Your task to perform on an android device: Open calendar and show me the third week of next month Image 0: 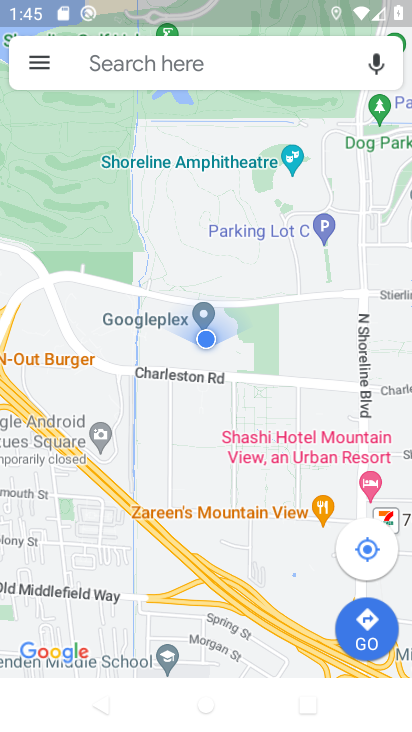
Step 0: press home button
Your task to perform on an android device: Open calendar and show me the third week of next month Image 1: 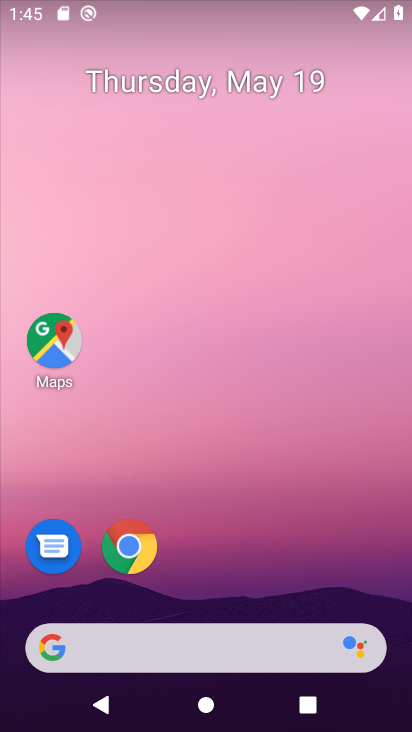
Step 1: drag from (198, 574) to (179, 57)
Your task to perform on an android device: Open calendar and show me the third week of next month Image 2: 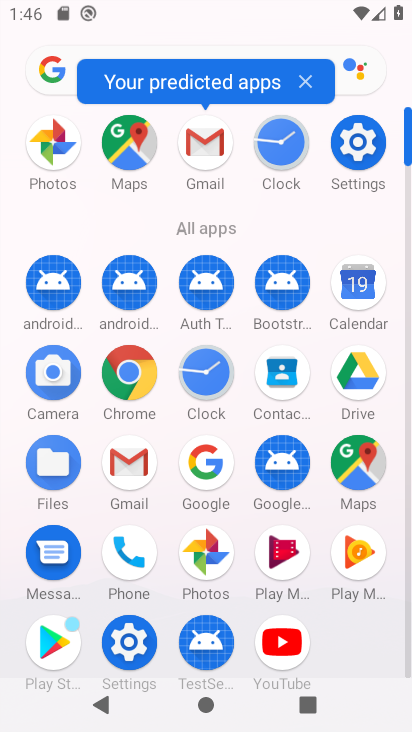
Step 2: click (352, 283)
Your task to perform on an android device: Open calendar and show me the third week of next month Image 3: 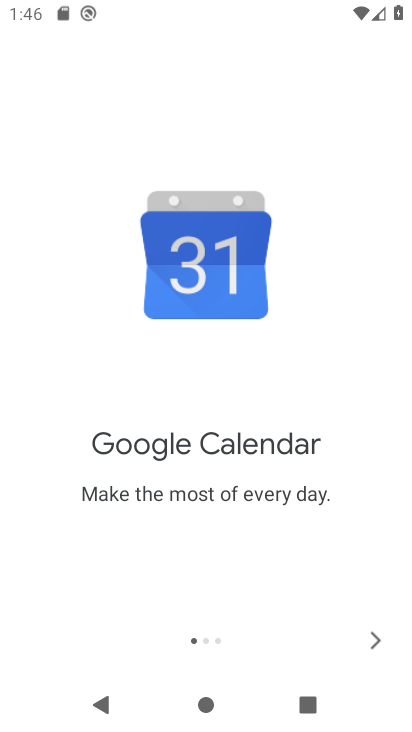
Step 3: click (379, 627)
Your task to perform on an android device: Open calendar and show me the third week of next month Image 4: 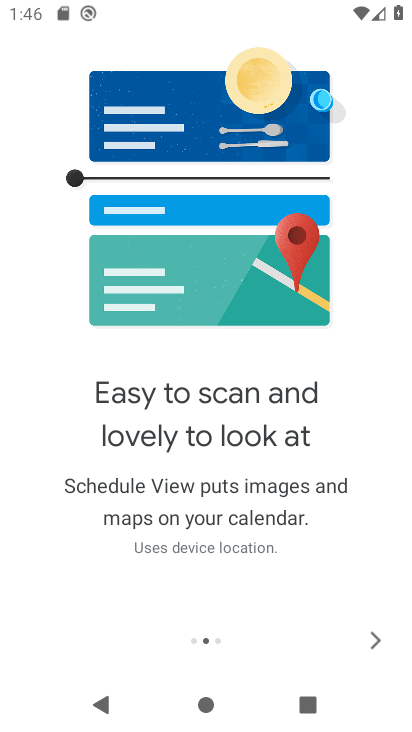
Step 4: click (376, 630)
Your task to perform on an android device: Open calendar and show me the third week of next month Image 5: 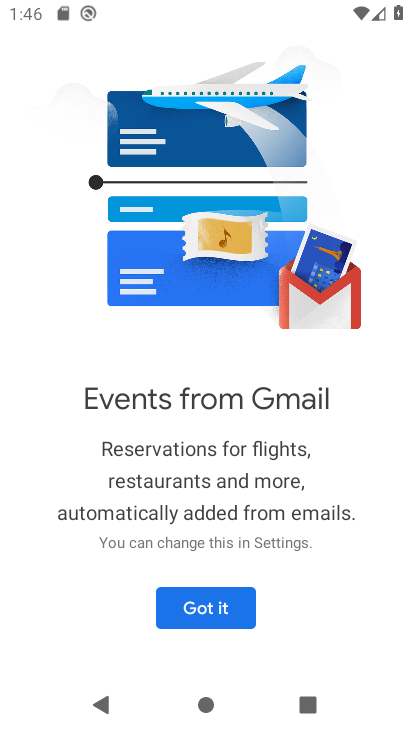
Step 5: click (376, 630)
Your task to perform on an android device: Open calendar and show me the third week of next month Image 6: 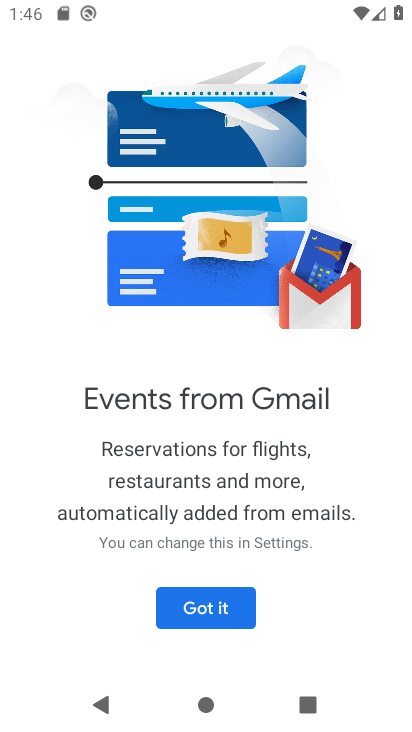
Step 6: click (211, 609)
Your task to perform on an android device: Open calendar and show me the third week of next month Image 7: 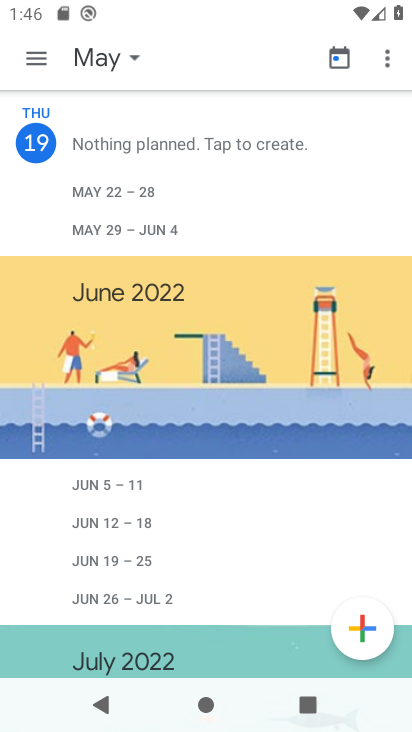
Step 7: click (126, 56)
Your task to perform on an android device: Open calendar and show me the third week of next month Image 8: 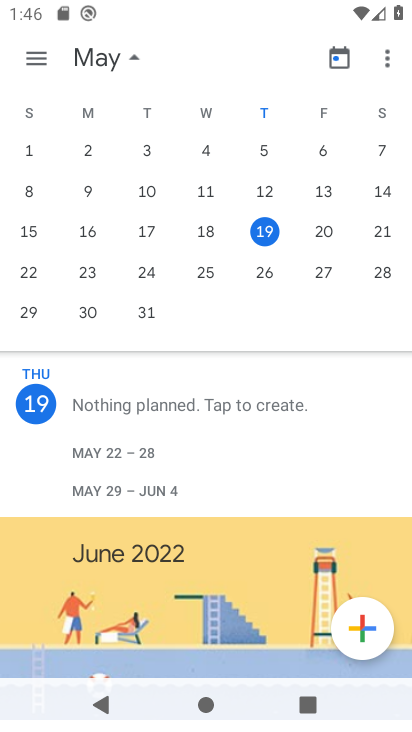
Step 8: drag from (359, 213) to (0, 214)
Your task to perform on an android device: Open calendar and show me the third week of next month Image 9: 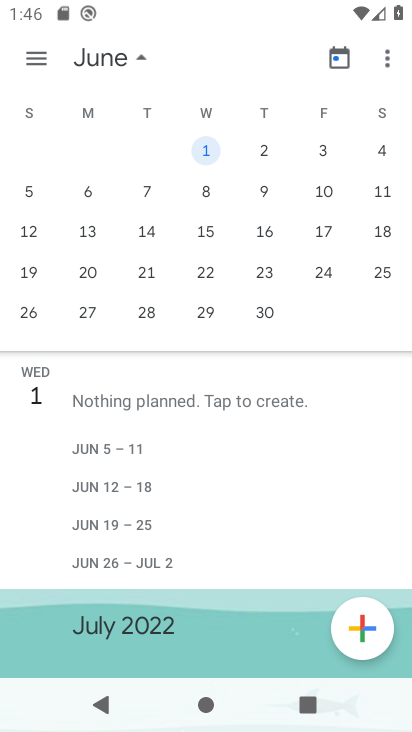
Step 9: click (28, 235)
Your task to perform on an android device: Open calendar and show me the third week of next month Image 10: 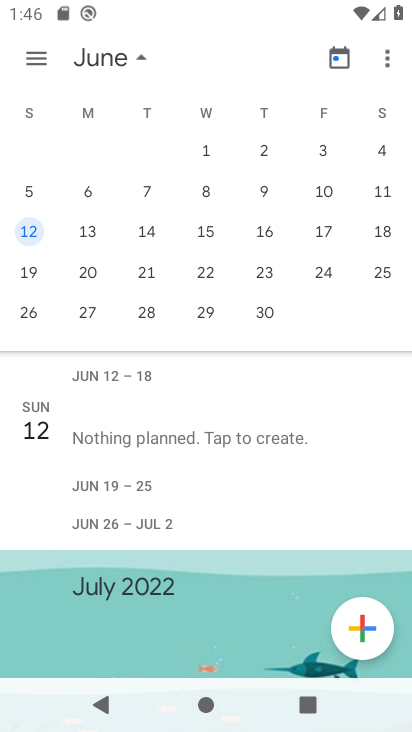
Step 10: click (140, 54)
Your task to perform on an android device: Open calendar and show me the third week of next month Image 11: 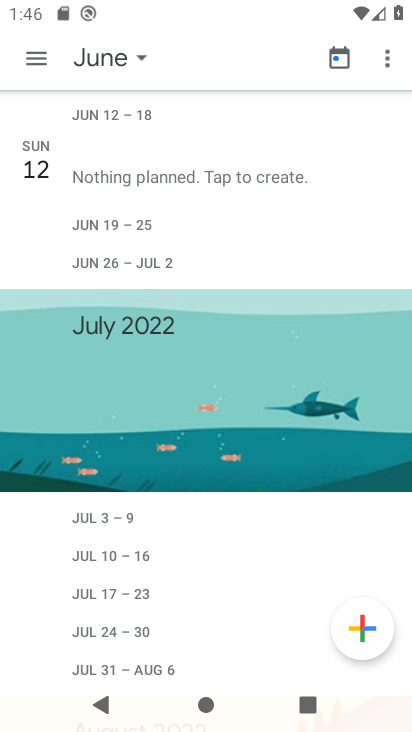
Step 11: task complete